Your task to perform on an android device: Show me the alarms in the clock app Image 0: 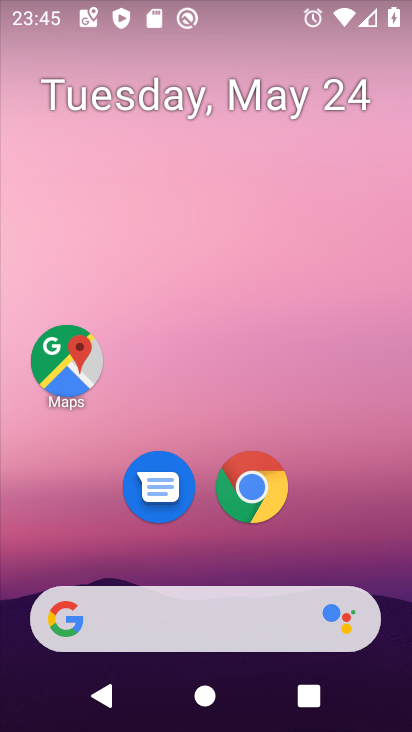
Step 0: drag from (171, 561) to (246, 160)
Your task to perform on an android device: Show me the alarms in the clock app Image 1: 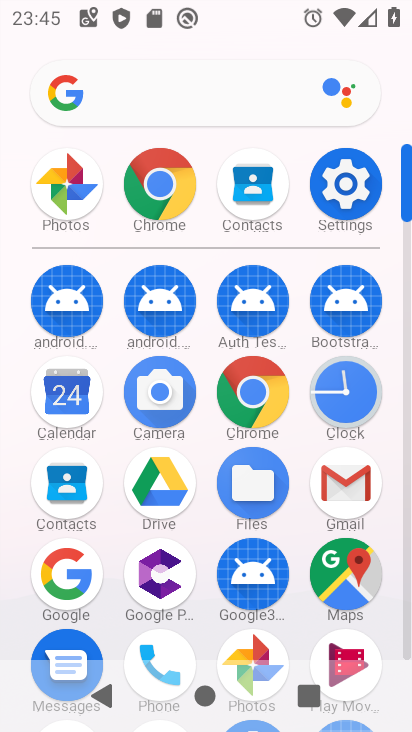
Step 1: click (352, 384)
Your task to perform on an android device: Show me the alarms in the clock app Image 2: 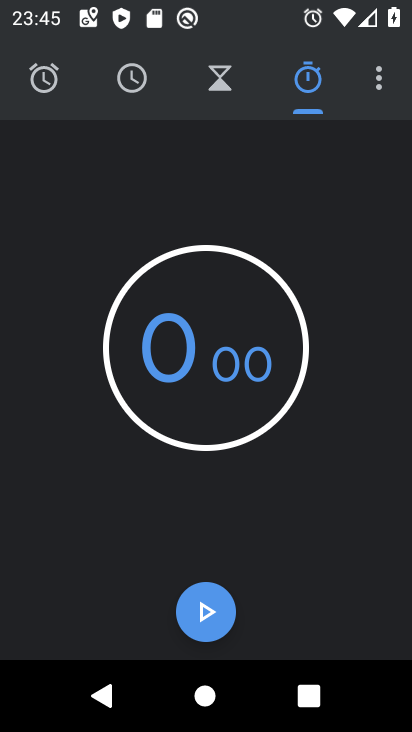
Step 2: click (38, 71)
Your task to perform on an android device: Show me the alarms in the clock app Image 3: 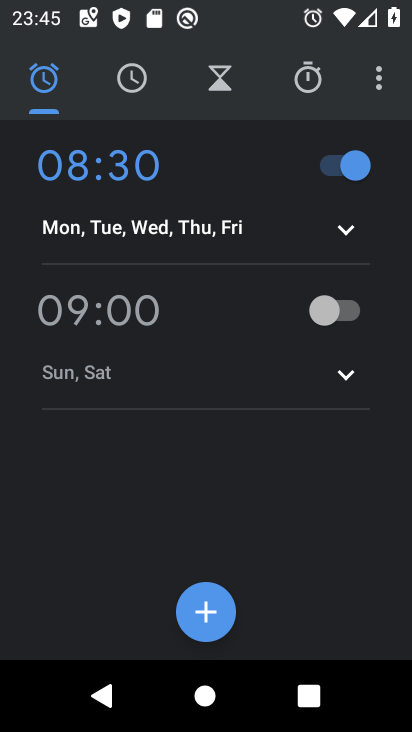
Step 3: task complete